Your task to perform on an android device: Open accessibility settings Image 0: 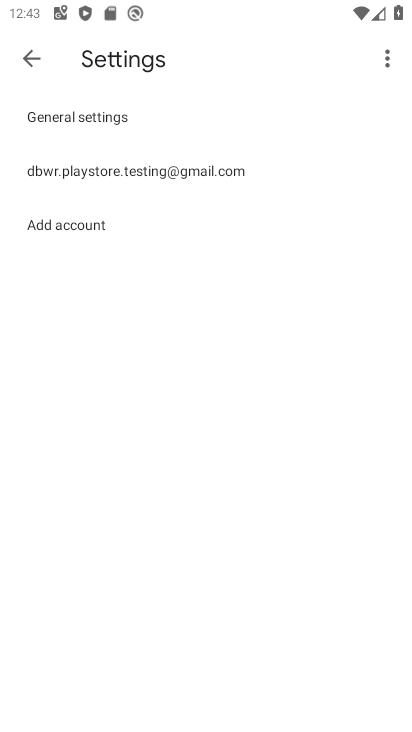
Step 0: press home button
Your task to perform on an android device: Open accessibility settings Image 1: 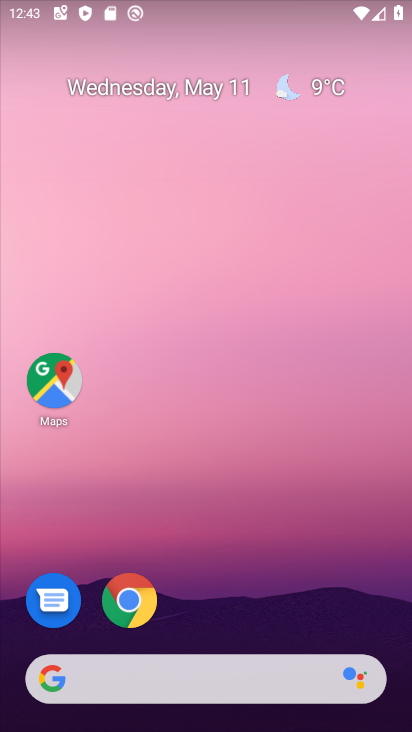
Step 1: drag from (274, 619) to (309, 38)
Your task to perform on an android device: Open accessibility settings Image 2: 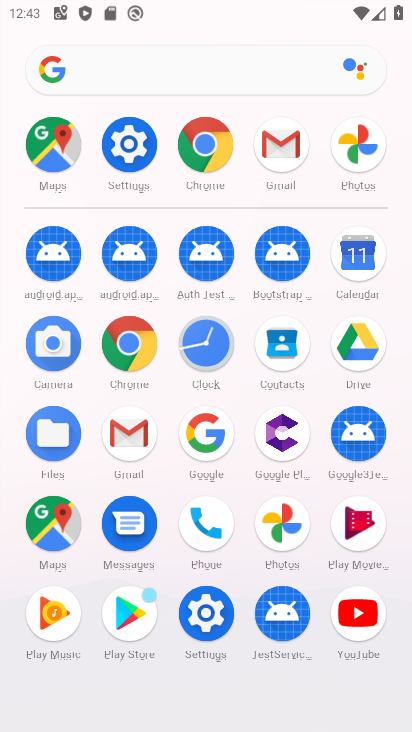
Step 2: click (133, 150)
Your task to perform on an android device: Open accessibility settings Image 3: 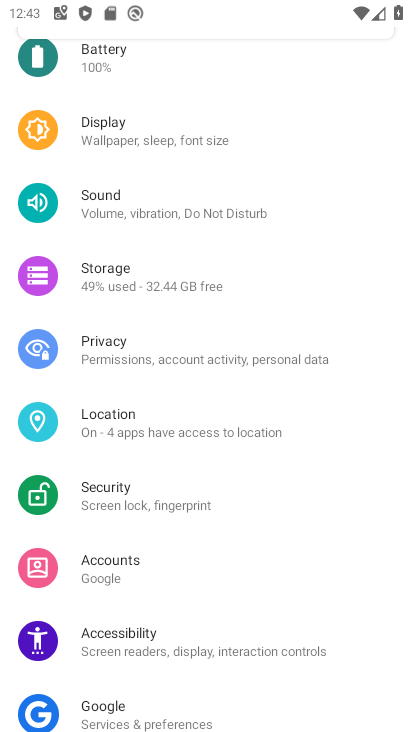
Step 3: click (203, 643)
Your task to perform on an android device: Open accessibility settings Image 4: 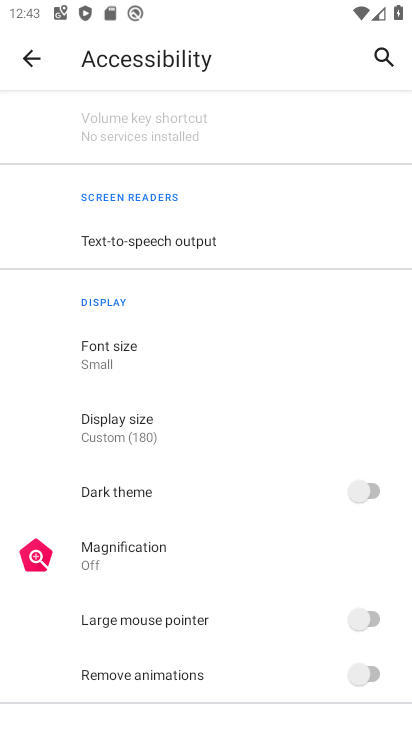
Step 4: task complete